Your task to perform on an android device: visit the assistant section in the google photos Image 0: 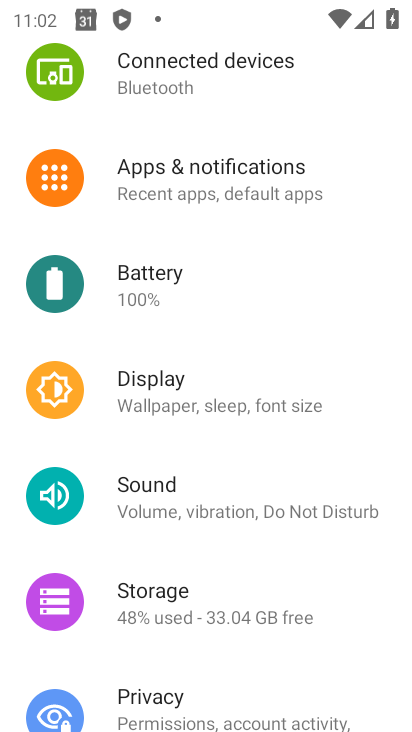
Step 0: press home button
Your task to perform on an android device: visit the assistant section in the google photos Image 1: 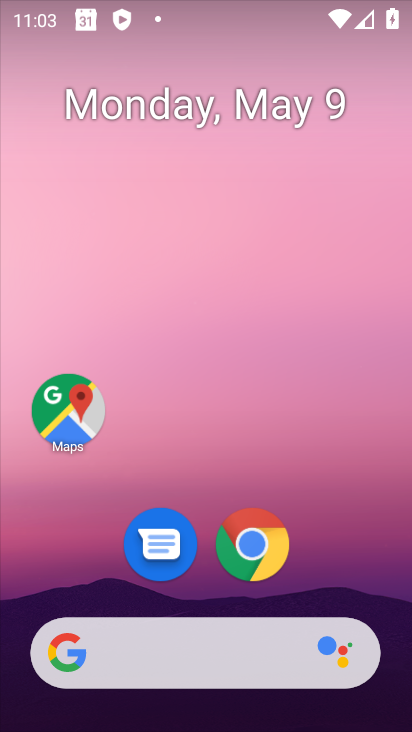
Step 1: drag from (41, 507) to (217, 121)
Your task to perform on an android device: visit the assistant section in the google photos Image 2: 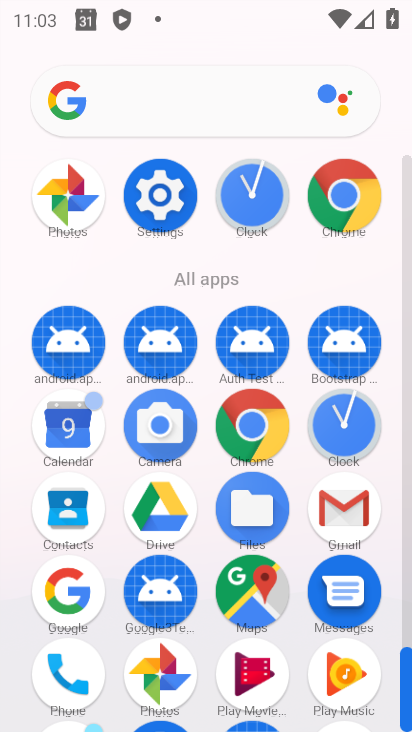
Step 2: click (67, 179)
Your task to perform on an android device: visit the assistant section in the google photos Image 3: 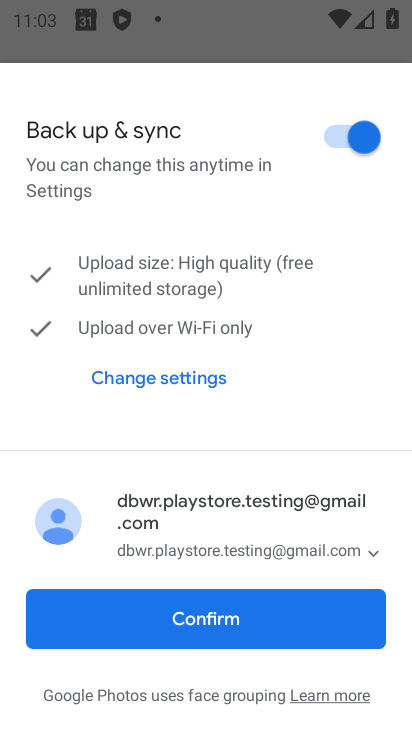
Step 3: click (258, 607)
Your task to perform on an android device: visit the assistant section in the google photos Image 4: 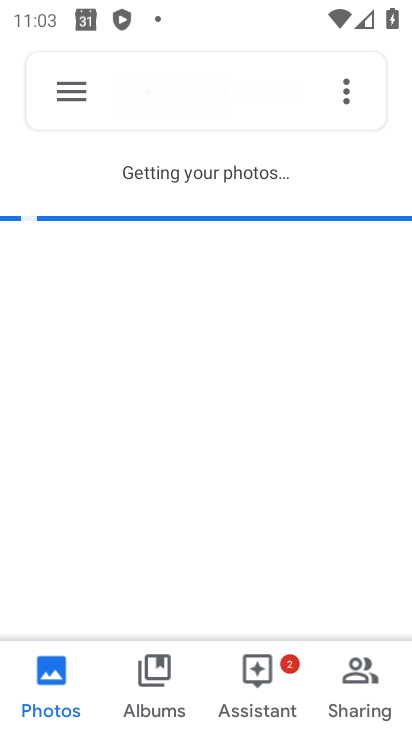
Step 4: click (247, 99)
Your task to perform on an android device: visit the assistant section in the google photos Image 5: 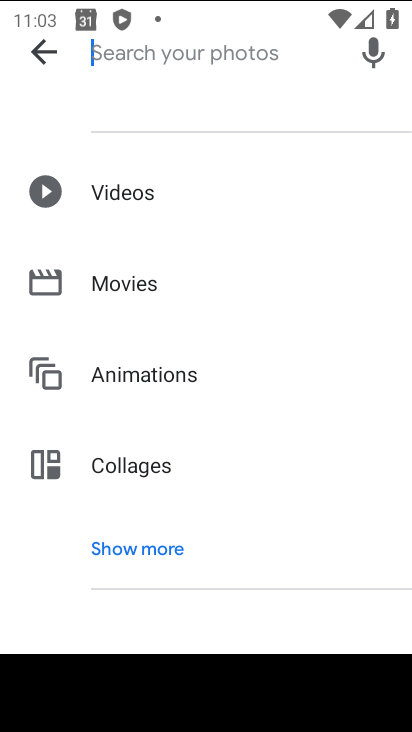
Step 5: click (121, 548)
Your task to perform on an android device: visit the assistant section in the google photos Image 6: 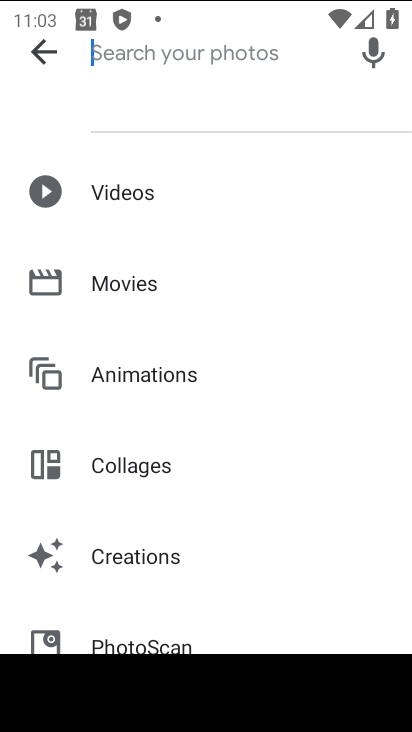
Step 6: drag from (137, 617) to (261, 168)
Your task to perform on an android device: visit the assistant section in the google photos Image 7: 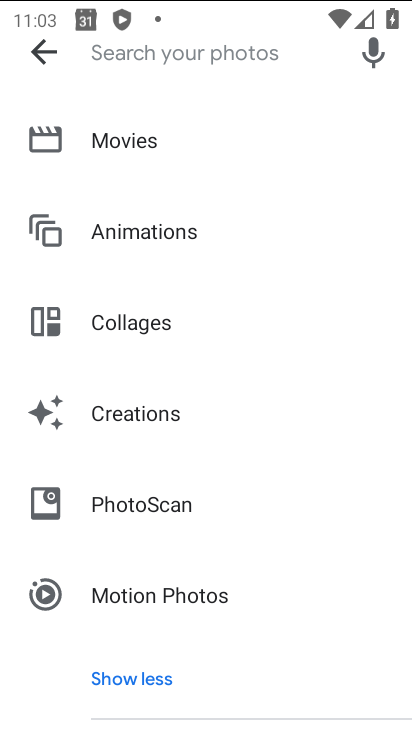
Step 7: press back button
Your task to perform on an android device: visit the assistant section in the google photos Image 8: 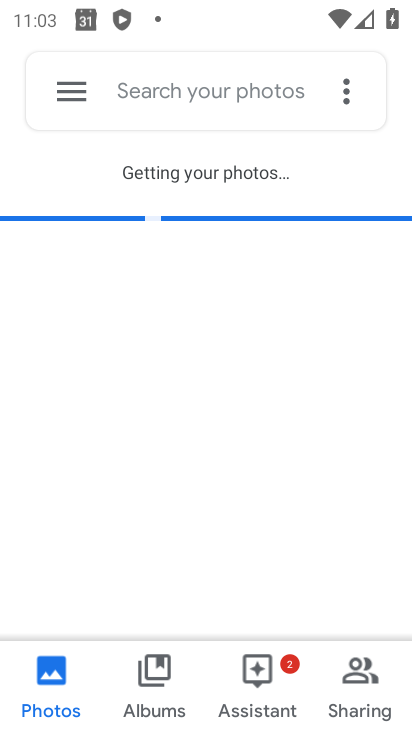
Step 8: click (273, 685)
Your task to perform on an android device: visit the assistant section in the google photos Image 9: 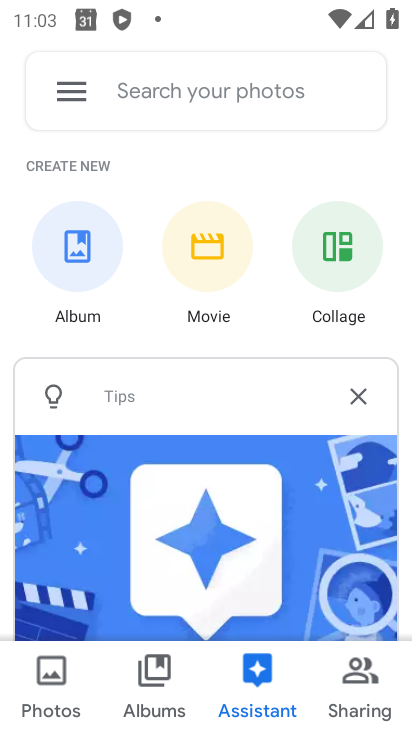
Step 9: task complete